Your task to perform on an android device: set the timer Image 0: 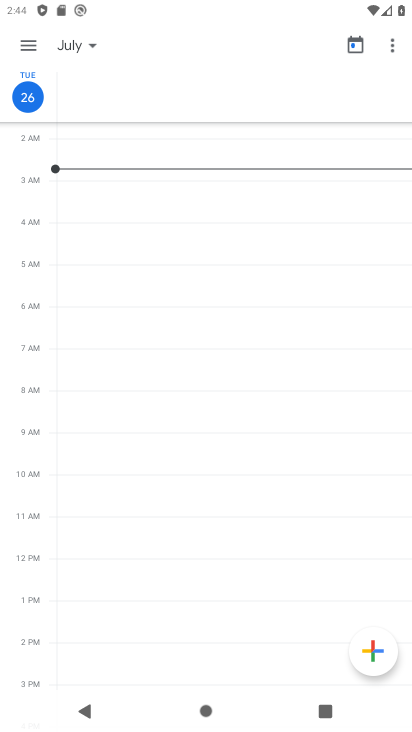
Step 0: press home button
Your task to perform on an android device: set the timer Image 1: 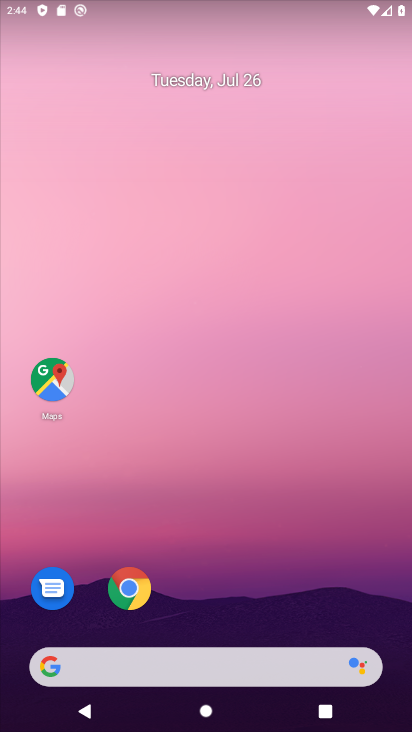
Step 1: drag from (225, 448) to (182, 81)
Your task to perform on an android device: set the timer Image 2: 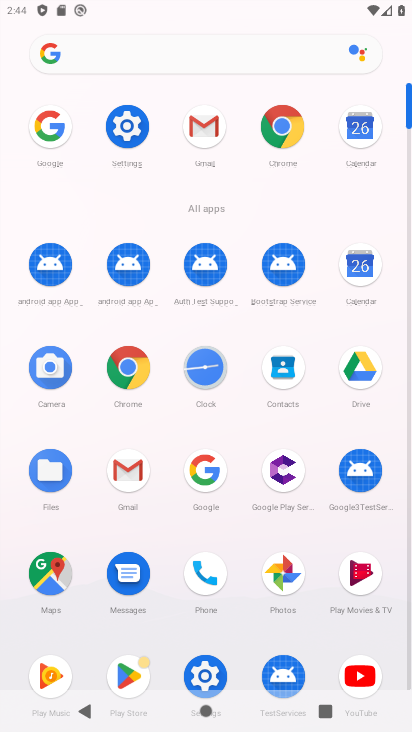
Step 2: click (190, 373)
Your task to perform on an android device: set the timer Image 3: 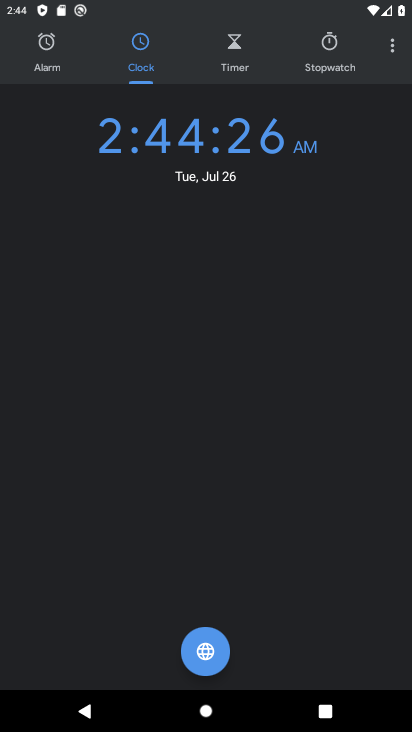
Step 3: click (236, 63)
Your task to perform on an android device: set the timer Image 4: 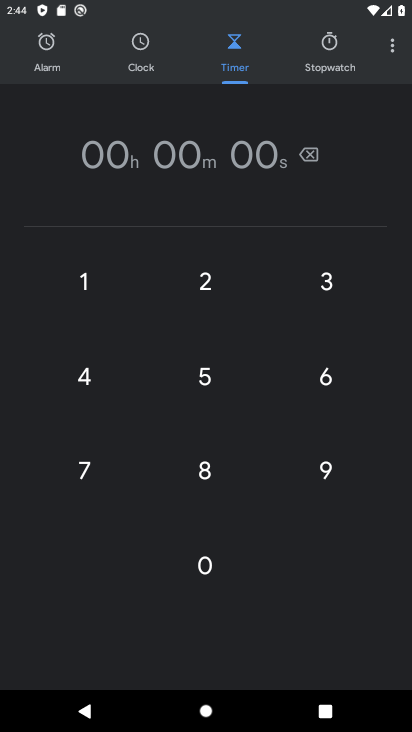
Step 4: click (207, 281)
Your task to perform on an android device: set the timer Image 5: 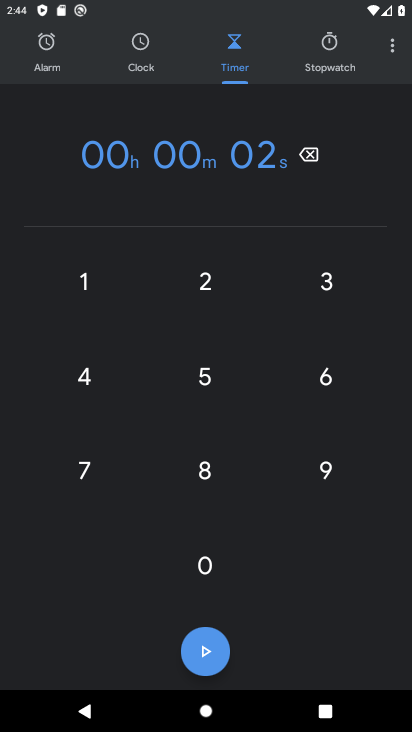
Step 5: click (200, 370)
Your task to perform on an android device: set the timer Image 6: 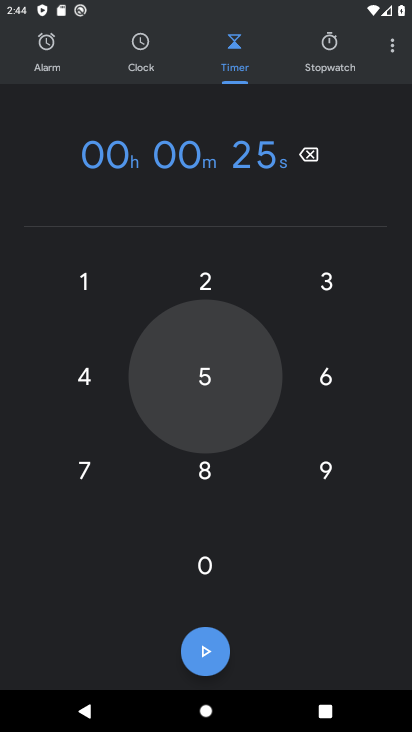
Step 6: click (224, 265)
Your task to perform on an android device: set the timer Image 7: 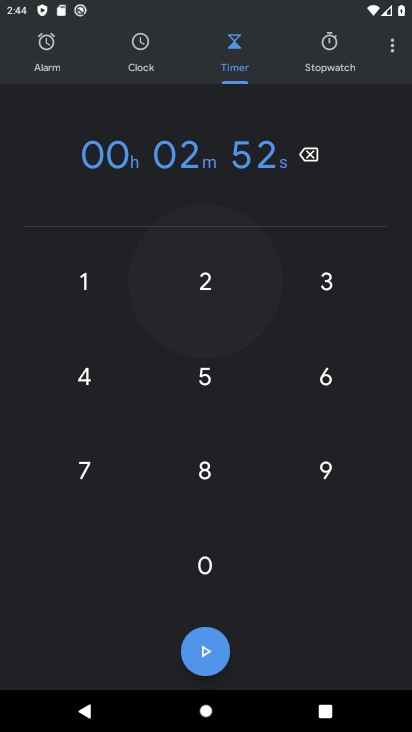
Step 7: drag from (206, 314) to (188, 369)
Your task to perform on an android device: set the timer Image 8: 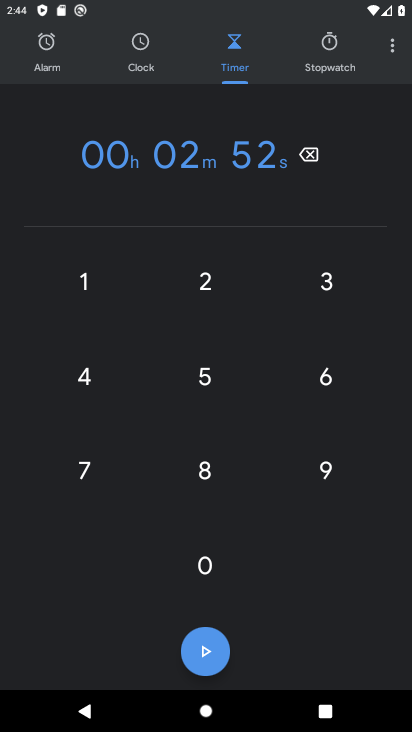
Step 8: click (186, 358)
Your task to perform on an android device: set the timer Image 9: 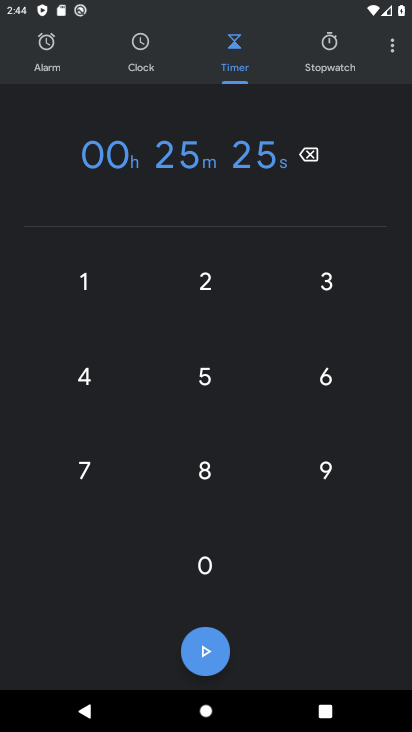
Step 9: click (186, 355)
Your task to perform on an android device: set the timer Image 10: 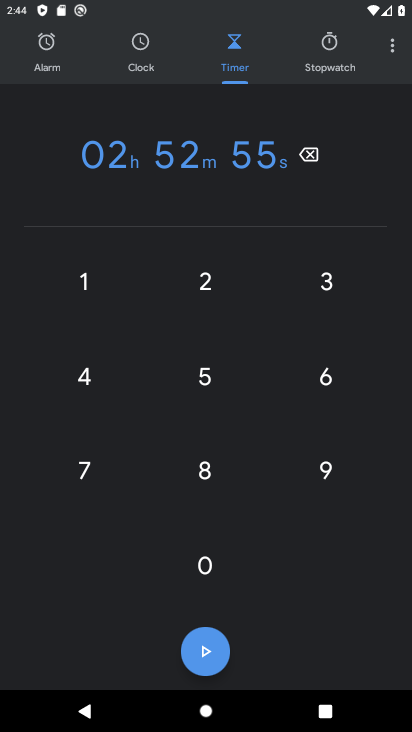
Step 10: click (197, 369)
Your task to perform on an android device: set the timer Image 11: 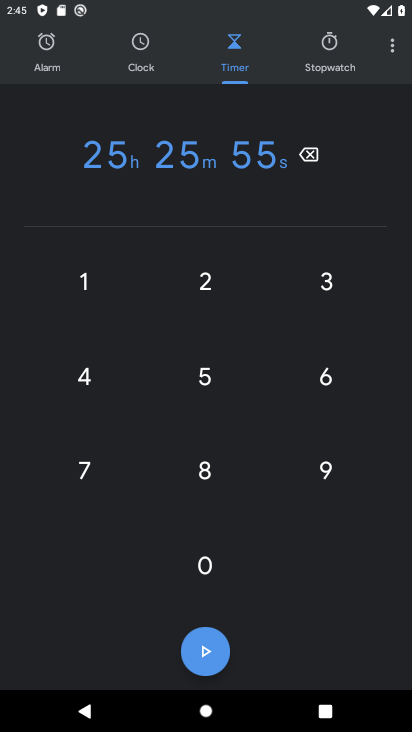
Step 11: click (195, 651)
Your task to perform on an android device: set the timer Image 12: 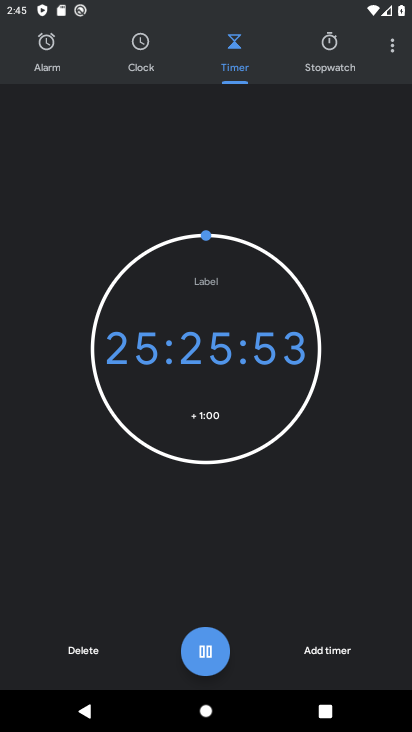
Step 12: task complete